Your task to perform on an android device: Search for the best rated lawnmower on Lowes.com Image 0: 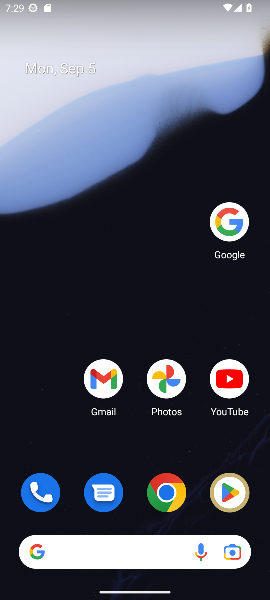
Step 0: click (227, 212)
Your task to perform on an android device: Search for the best rated lawnmower on Lowes.com Image 1: 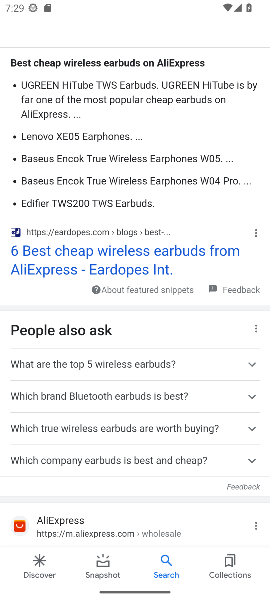
Step 1: drag from (139, 133) to (119, 573)
Your task to perform on an android device: Search for the best rated lawnmower on Lowes.com Image 2: 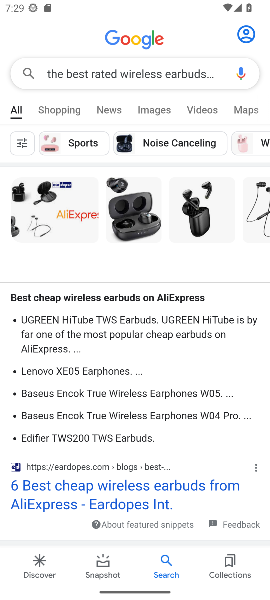
Step 2: click (204, 70)
Your task to perform on an android device: Search for the best rated lawnmower on Lowes.com Image 3: 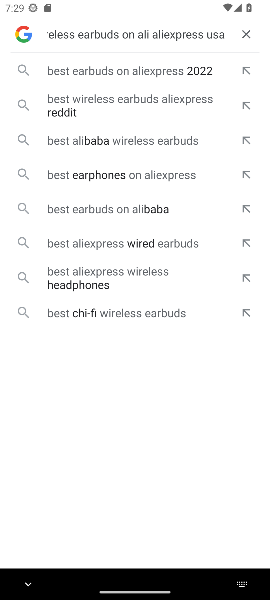
Step 3: click (249, 34)
Your task to perform on an android device: Search for the best rated lawnmower on Lowes.com Image 4: 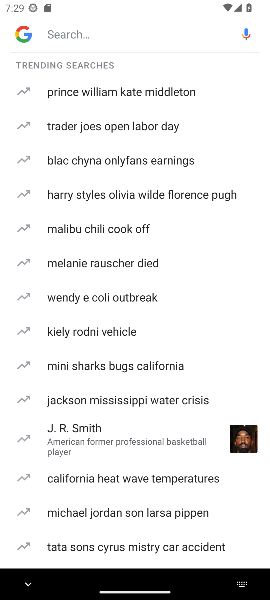
Step 4: click (117, 37)
Your task to perform on an android device: Search for the best rated lawnmower on Lowes.com Image 5: 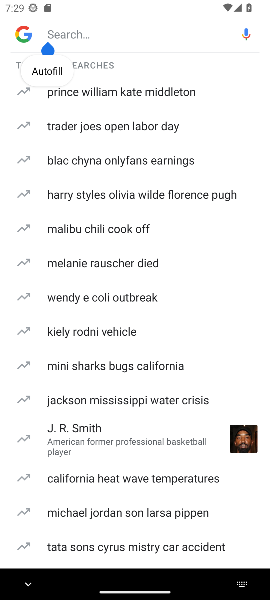
Step 5: type " the best rated lawnmower on Lowes.com "
Your task to perform on an android device: Search for the best rated lawnmower on Lowes.com Image 6: 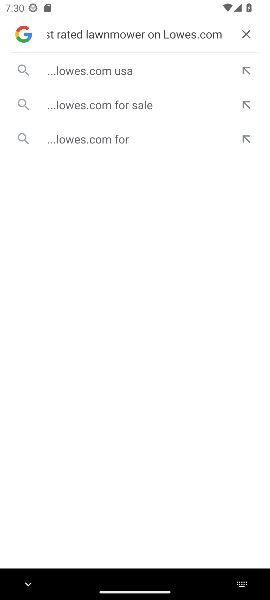
Step 6: click (80, 71)
Your task to perform on an android device: Search for the best rated lawnmower on Lowes.com Image 7: 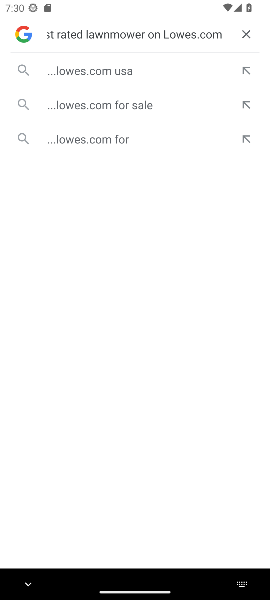
Step 7: click (80, 71)
Your task to perform on an android device: Search for the best rated lawnmower on Lowes.com Image 8: 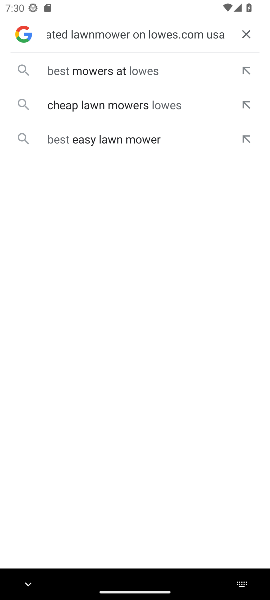
Step 8: click (117, 77)
Your task to perform on an android device: Search for the best rated lawnmower on Lowes.com Image 9: 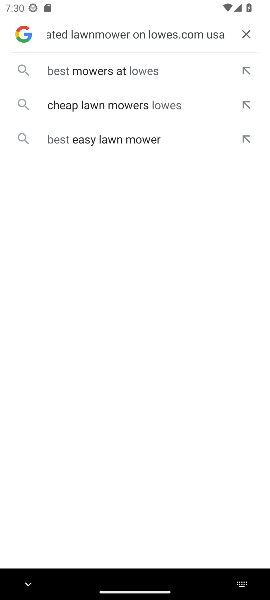
Step 9: click (117, 77)
Your task to perform on an android device: Search for the best rated lawnmower on Lowes.com Image 10: 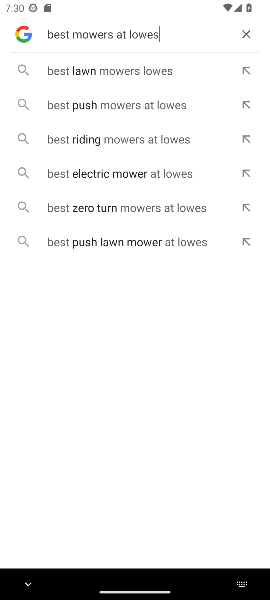
Step 10: click (96, 62)
Your task to perform on an android device: Search for the best rated lawnmower on Lowes.com Image 11: 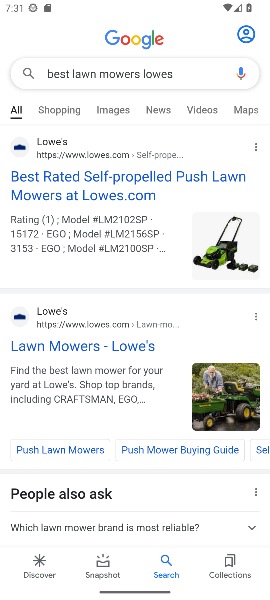
Step 11: task complete